Your task to perform on an android device: Open Amazon Image 0: 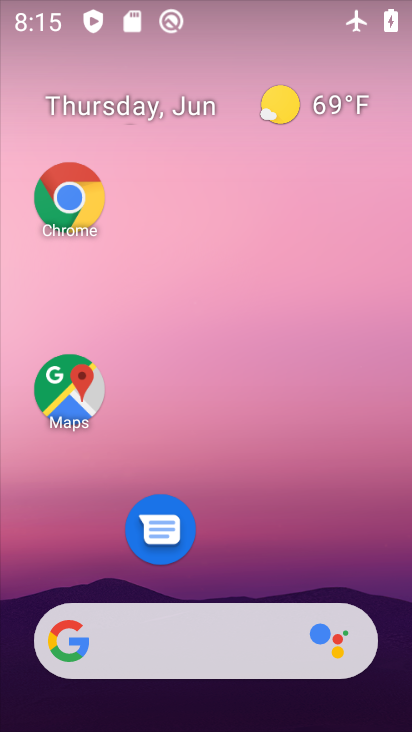
Step 0: click (86, 196)
Your task to perform on an android device: Open Amazon Image 1: 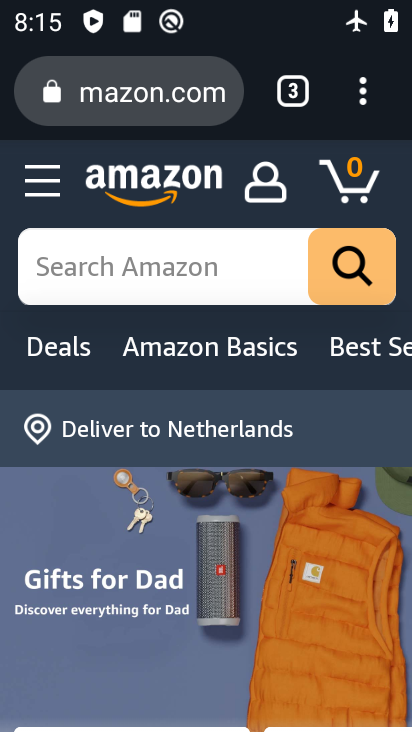
Step 1: task complete